Your task to perform on an android device: open chrome privacy settings Image 0: 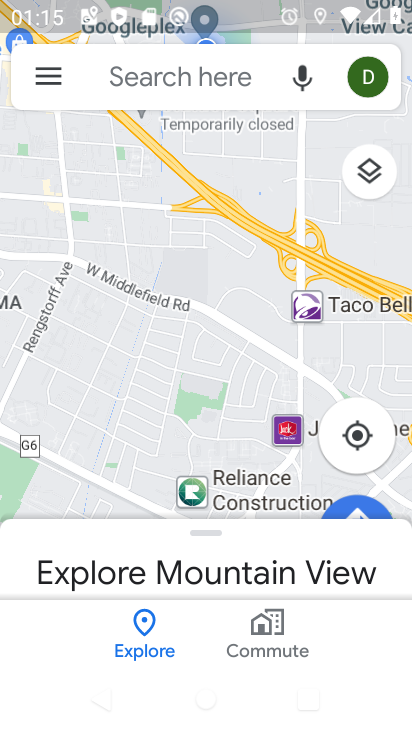
Step 0: drag from (184, 600) to (226, 293)
Your task to perform on an android device: open chrome privacy settings Image 1: 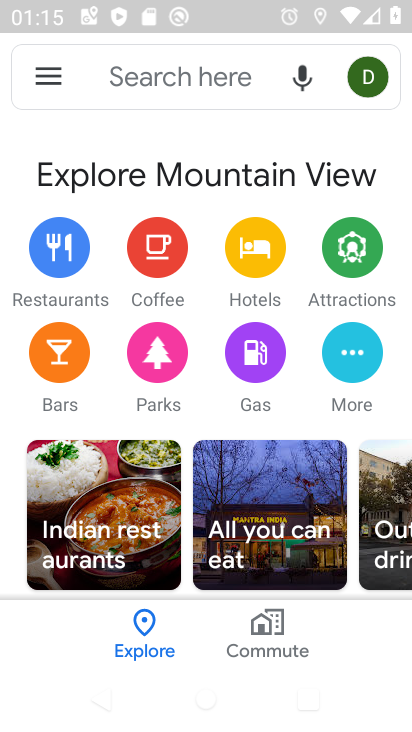
Step 1: press back button
Your task to perform on an android device: open chrome privacy settings Image 2: 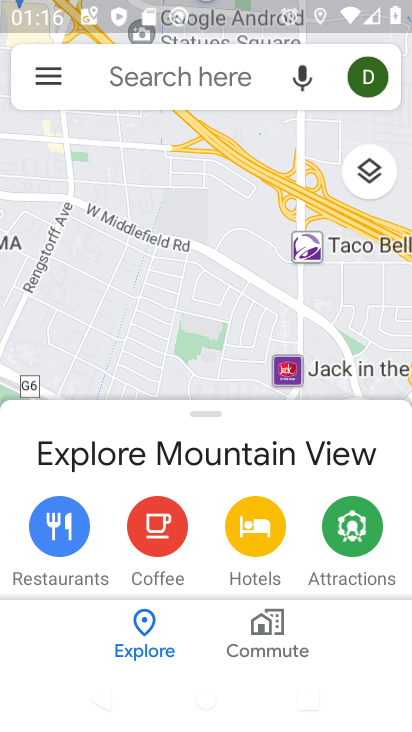
Step 2: click (37, 84)
Your task to perform on an android device: open chrome privacy settings Image 3: 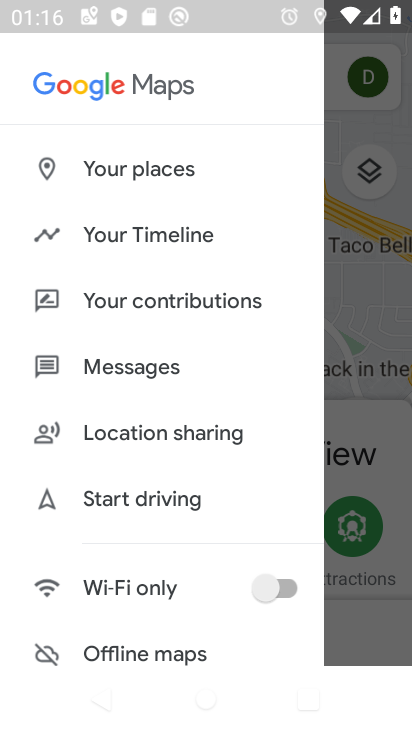
Step 3: click (376, 290)
Your task to perform on an android device: open chrome privacy settings Image 4: 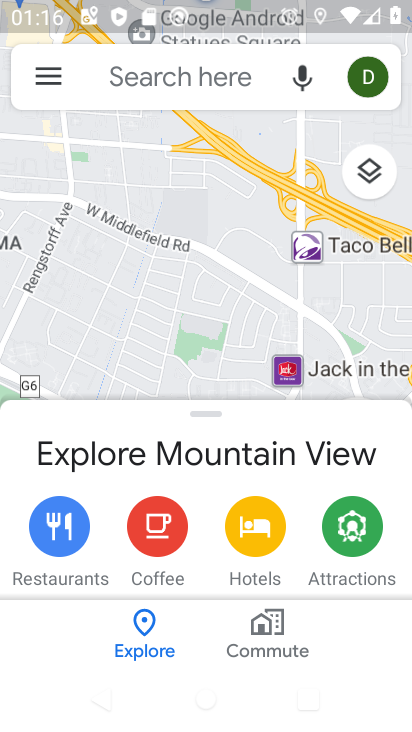
Step 4: press home button
Your task to perform on an android device: open chrome privacy settings Image 5: 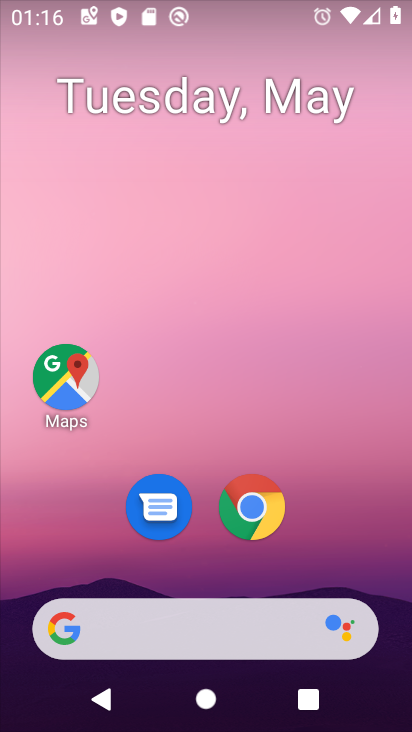
Step 5: click (249, 522)
Your task to perform on an android device: open chrome privacy settings Image 6: 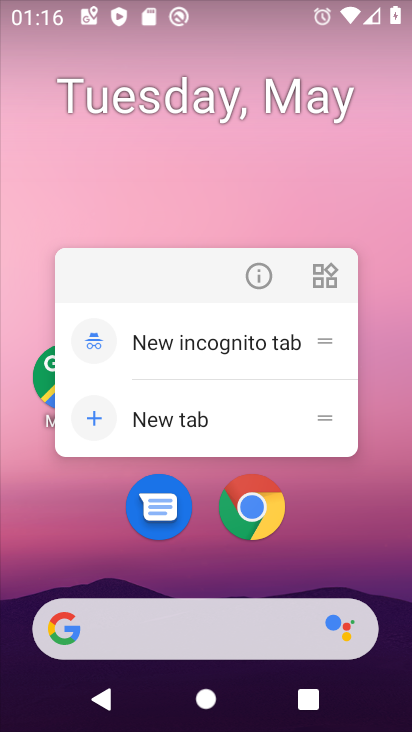
Step 6: click (250, 507)
Your task to perform on an android device: open chrome privacy settings Image 7: 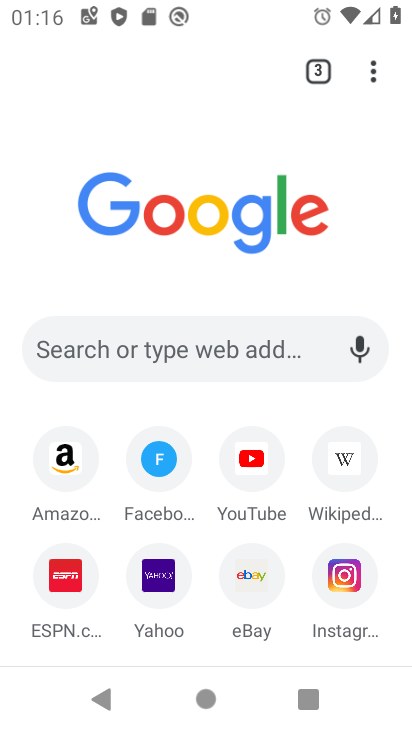
Step 7: click (375, 77)
Your task to perform on an android device: open chrome privacy settings Image 8: 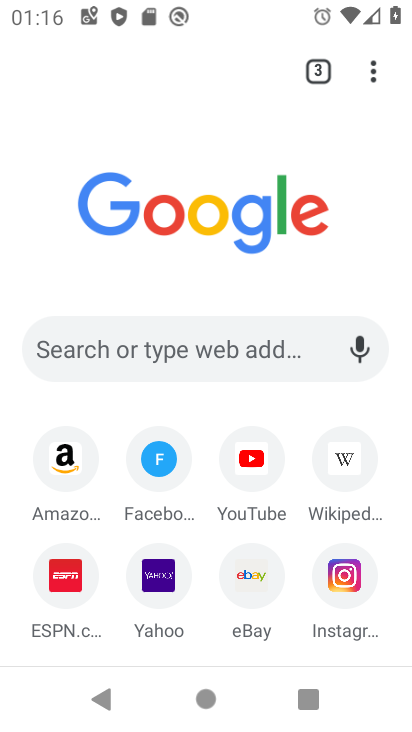
Step 8: click (375, 77)
Your task to perform on an android device: open chrome privacy settings Image 9: 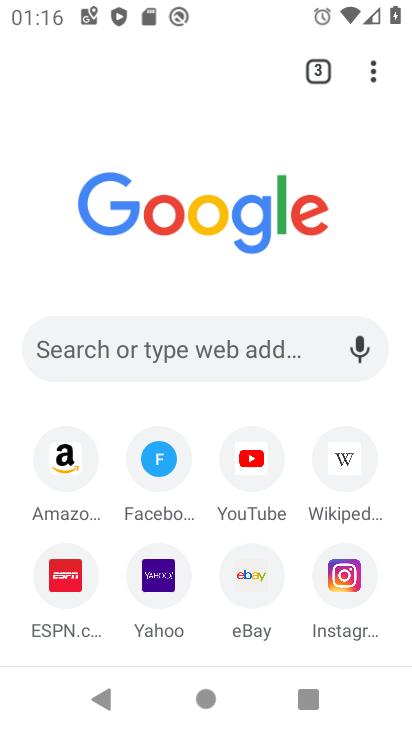
Step 9: click (375, 77)
Your task to perform on an android device: open chrome privacy settings Image 10: 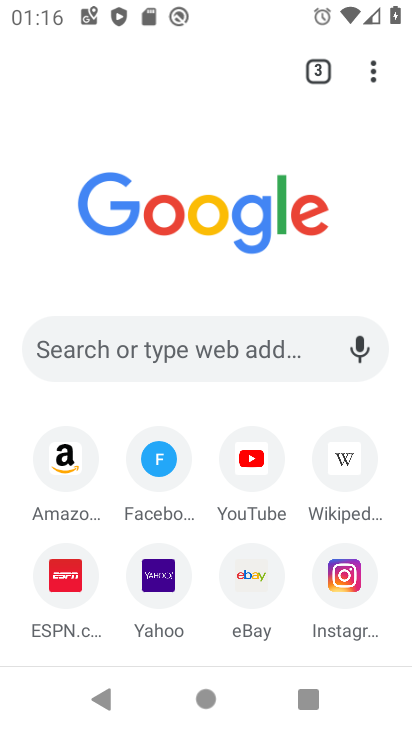
Step 10: click (372, 66)
Your task to perform on an android device: open chrome privacy settings Image 11: 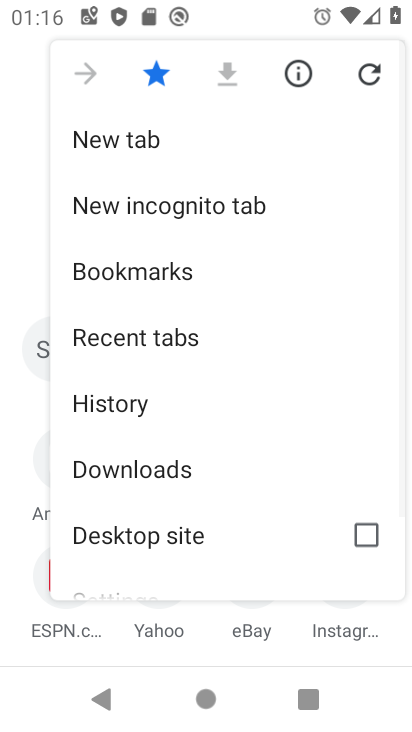
Step 11: drag from (201, 554) to (174, 216)
Your task to perform on an android device: open chrome privacy settings Image 12: 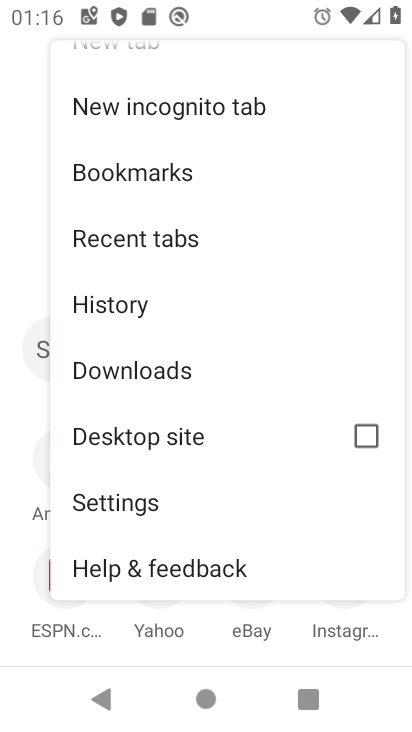
Step 12: click (111, 505)
Your task to perform on an android device: open chrome privacy settings Image 13: 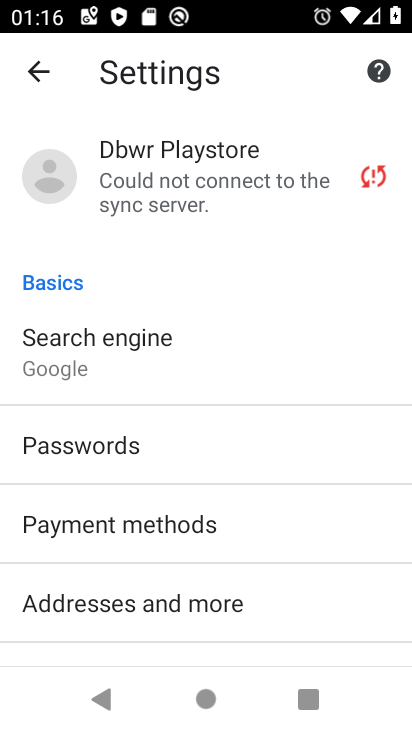
Step 13: drag from (101, 608) to (98, 385)
Your task to perform on an android device: open chrome privacy settings Image 14: 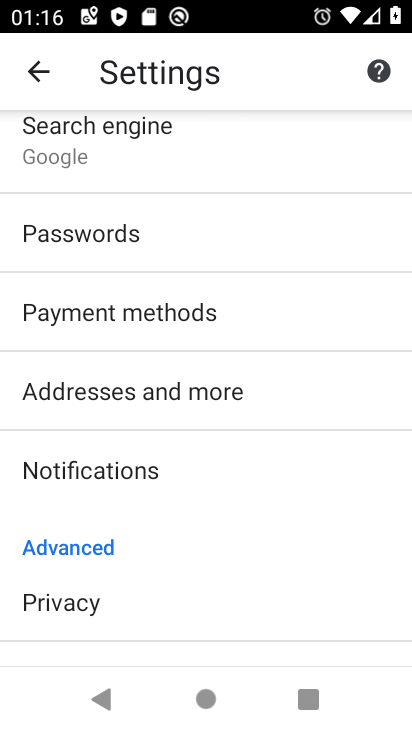
Step 14: click (102, 617)
Your task to perform on an android device: open chrome privacy settings Image 15: 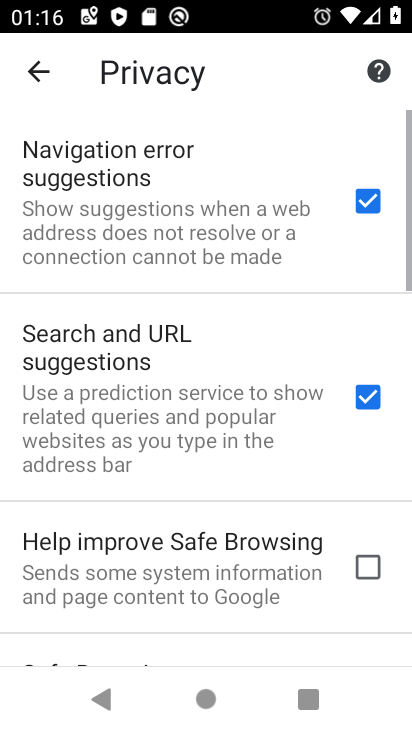
Step 15: task complete